Your task to perform on an android device: change notification settings in the gmail app Image 0: 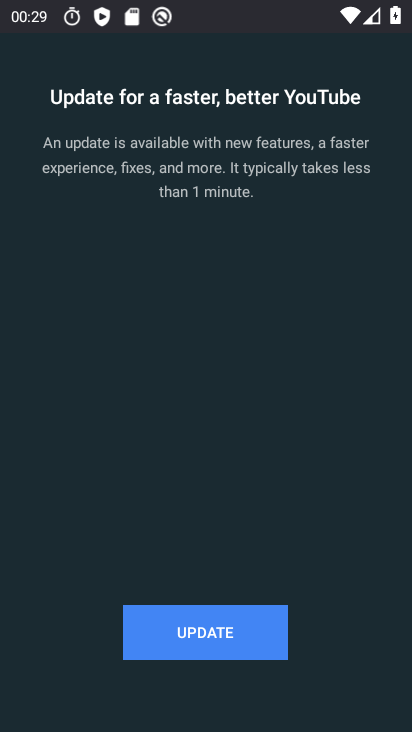
Step 0: press home button
Your task to perform on an android device: change notification settings in the gmail app Image 1: 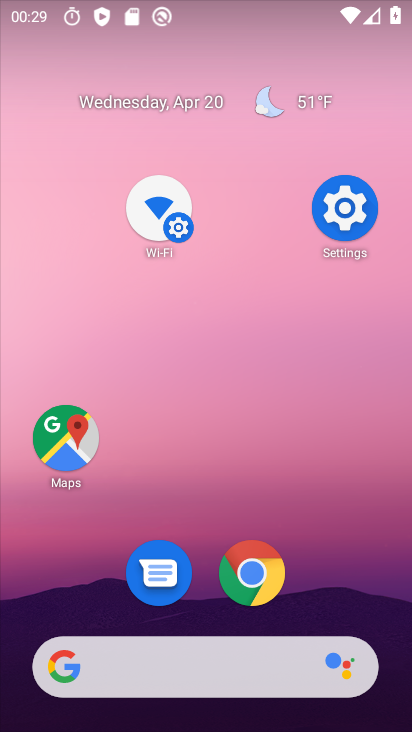
Step 1: drag from (333, 576) to (282, 160)
Your task to perform on an android device: change notification settings in the gmail app Image 2: 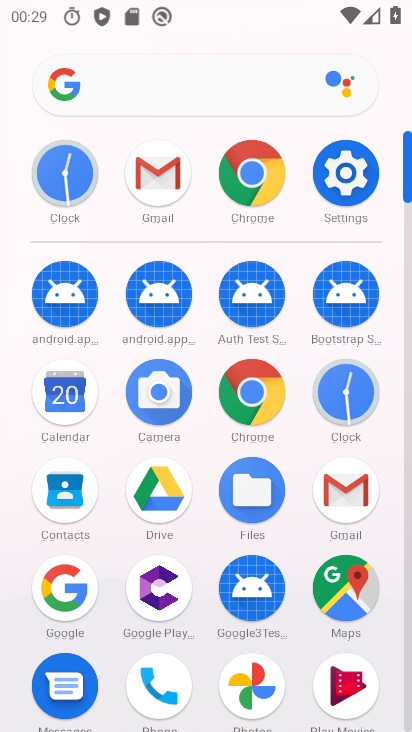
Step 2: click (354, 499)
Your task to perform on an android device: change notification settings in the gmail app Image 3: 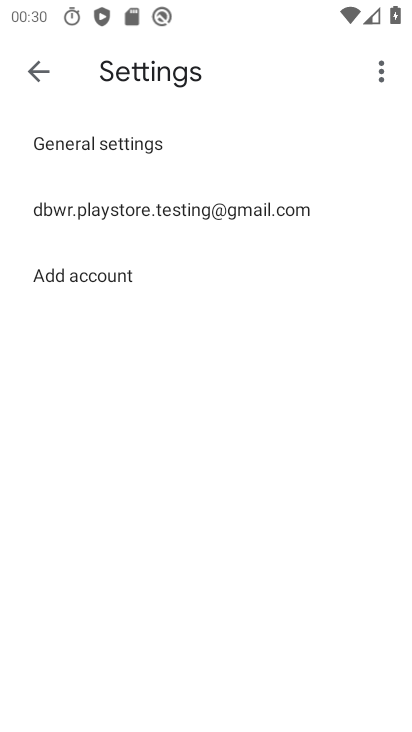
Step 3: press back button
Your task to perform on an android device: change notification settings in the gmail app Image 4: 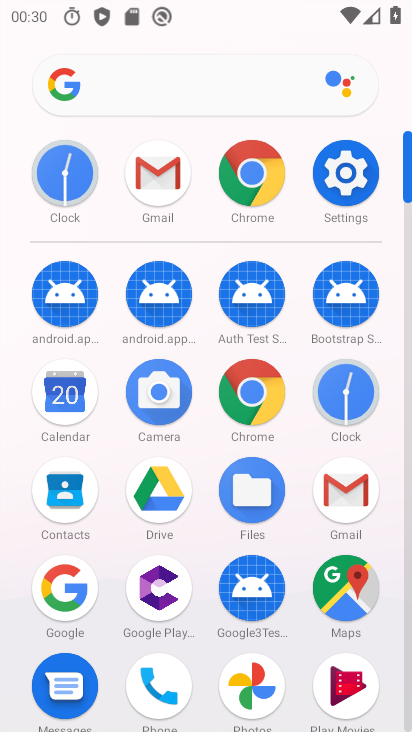
Step 4: click (347, 196)
Your task to perform on an android device: change notification settings in the gmail app Image 5: 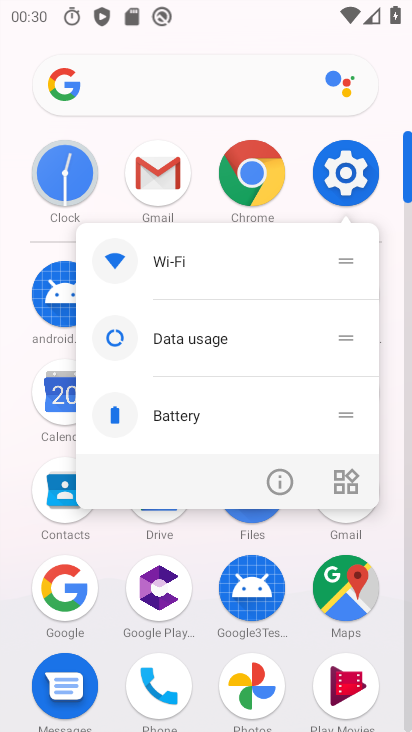
Step 5: click (355, 176)
Your task to perform on an android device: change notification settings in the gmail app Image 6: 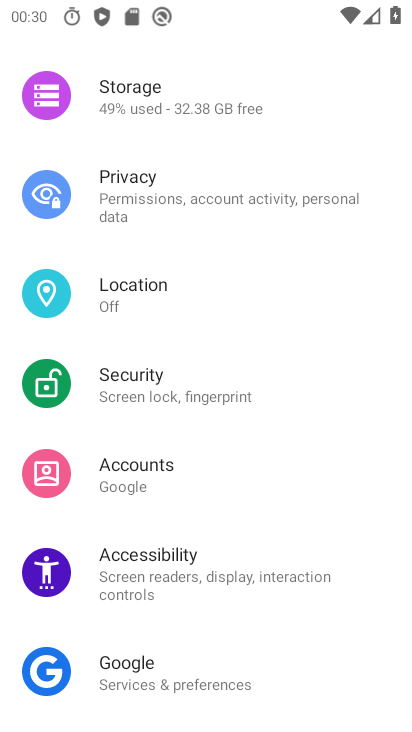
Step 6: drag from (290, 297) to (301, 621)
Your task to perform on an android device: change notification settings in the gmail app Image 7: 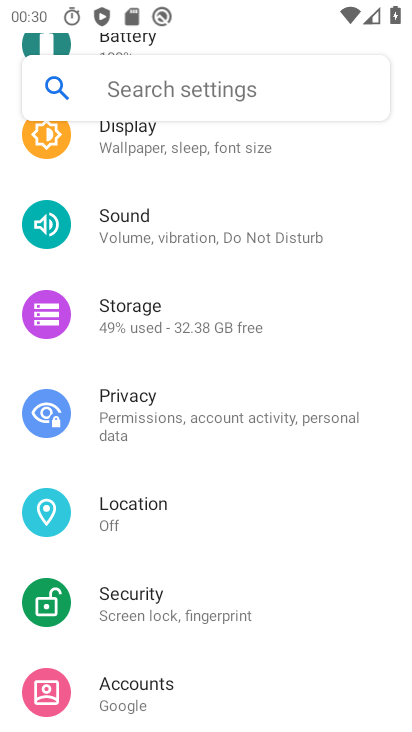
Step 7: drag from (278, 251) to (297, 652)
Your task to perform on an android device: change notification settings in the gmail app Image 8: 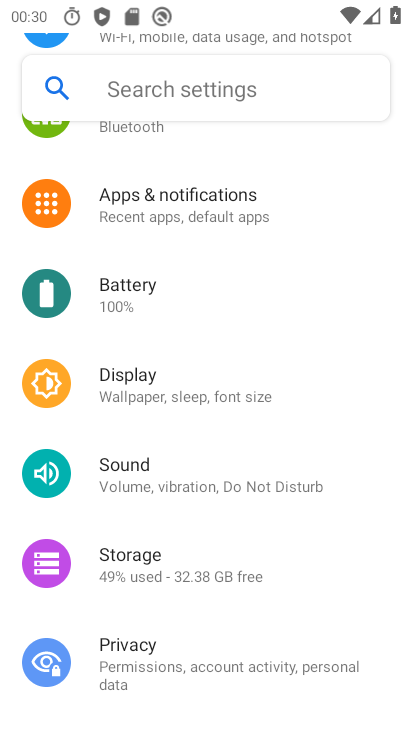
Step 8: click (216, 201)
Your task to perform on an android device: change notification settings in the gmail app Image 9: 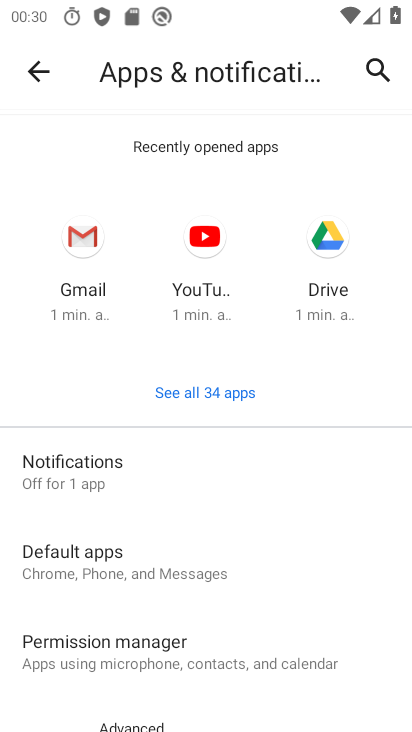
Step 9: click (105, 484)
Your task to perform on an android device: change notification settings in the gmail app Image 10: 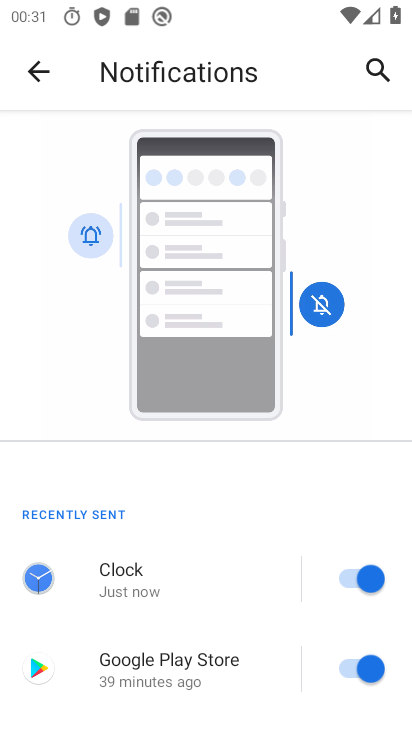
Step 10: task complete